Your task to perform on an android device: toggle translation in the chrome app Image 0: 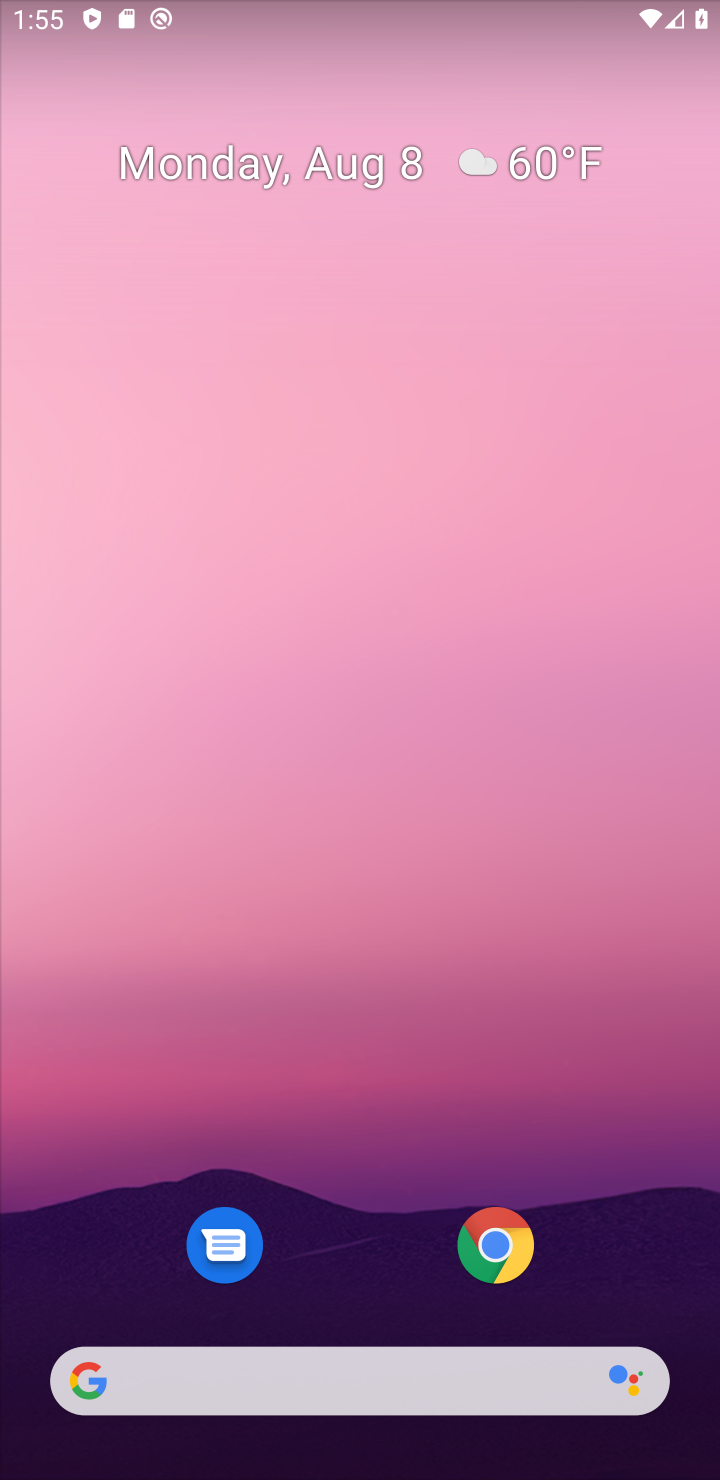
Step 0: press home button
Your task to perform on an android device: toggle translation in the chrome app Image 1: 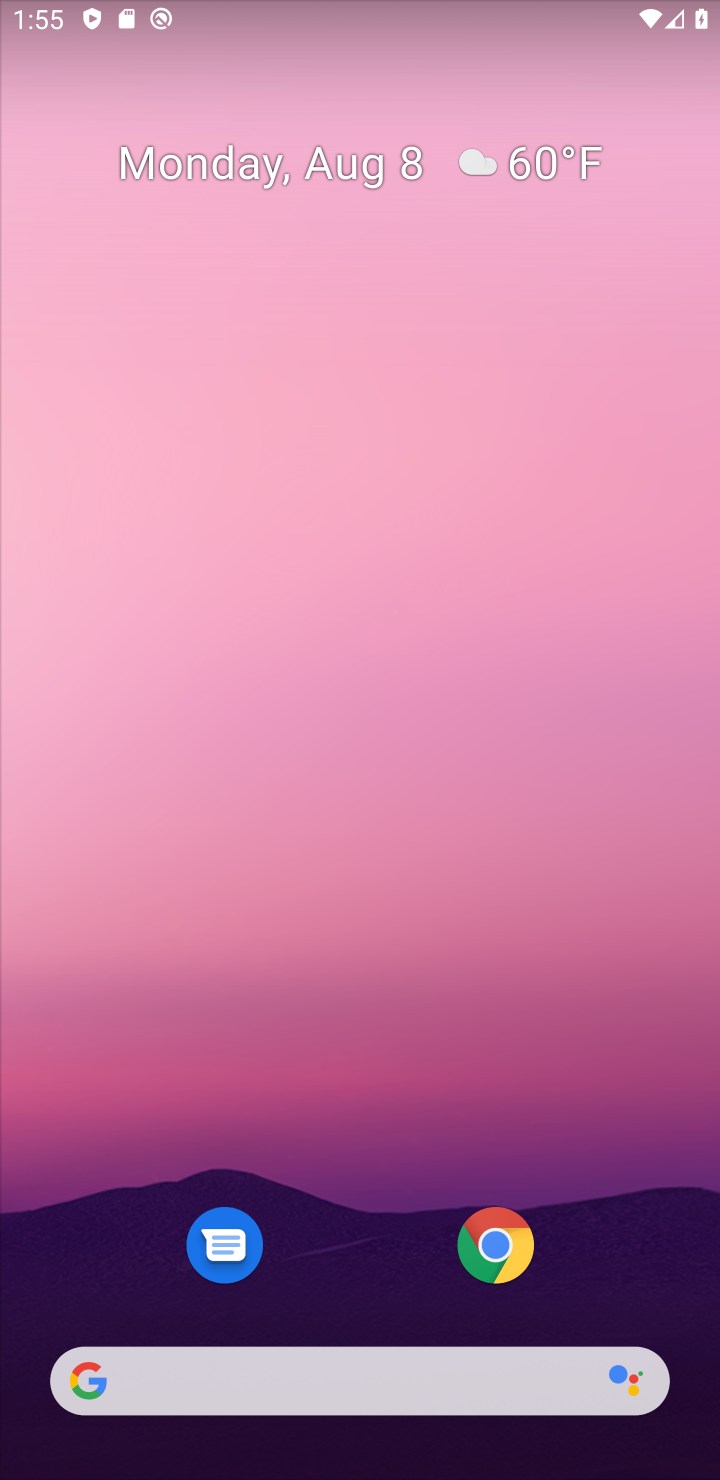
Step 1: click (498, 1249)
Your task to perform on an android device: toggle translation in the chrome app Image 2: 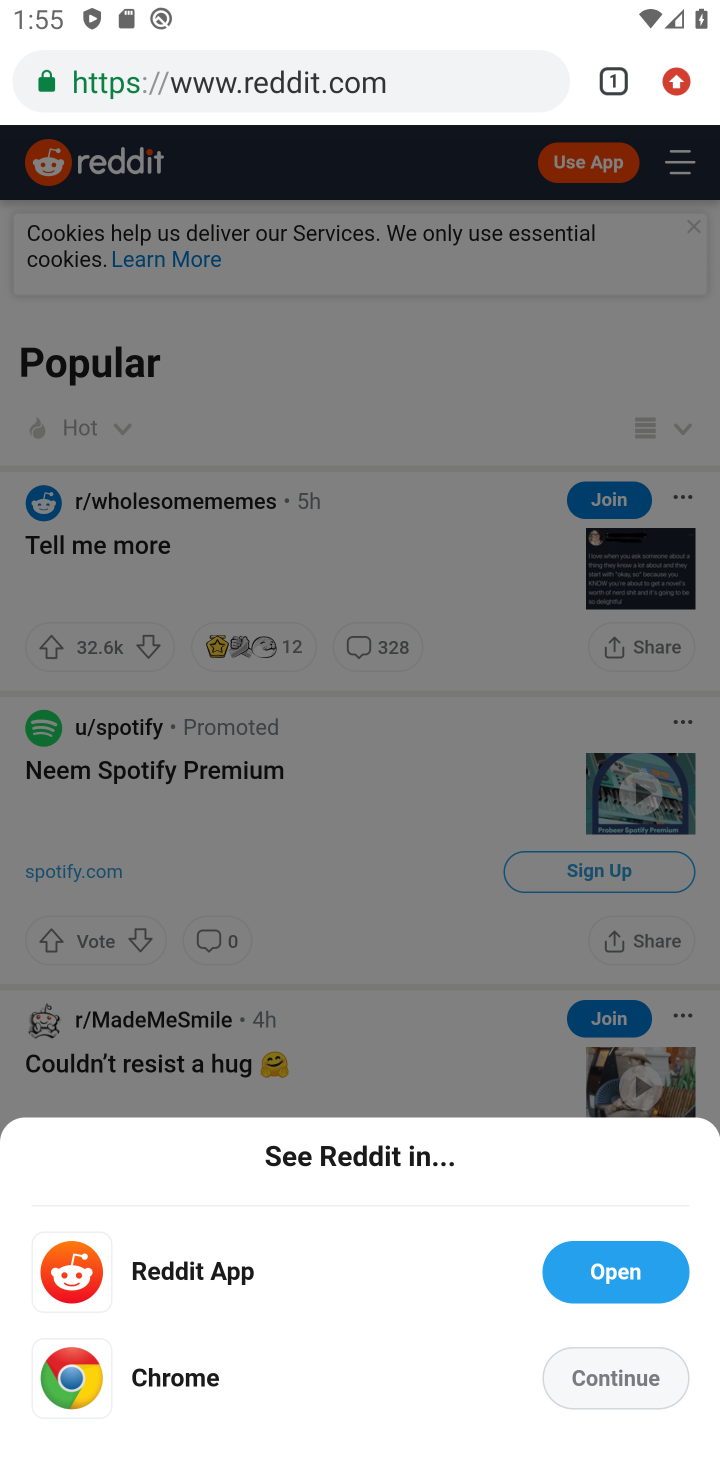
Step 2: click (615, 1368)
Your task to perform on an android device: toggle translation in the chrome app Image 3: 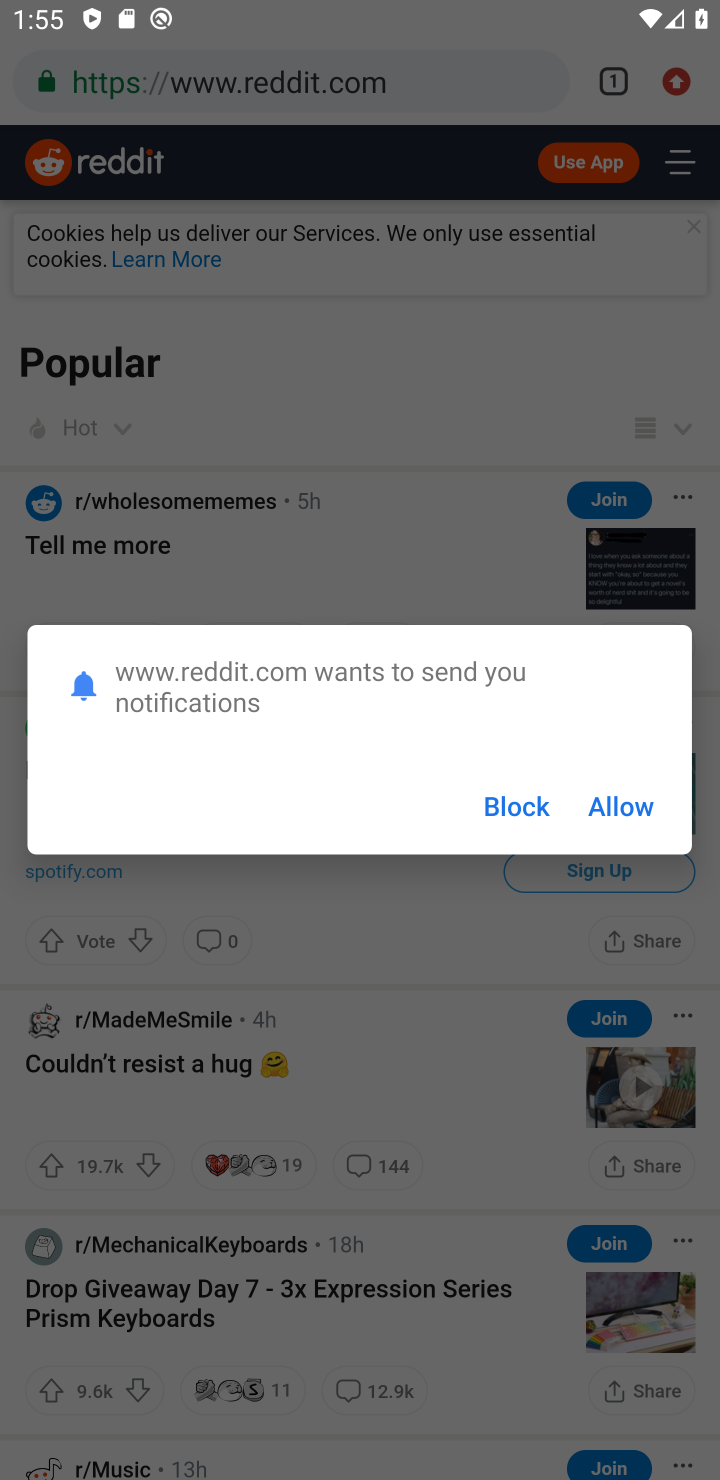
Step 3: click (625, 793)
Your task to perform on an android device: toggle translation in the chrome app Image 4: 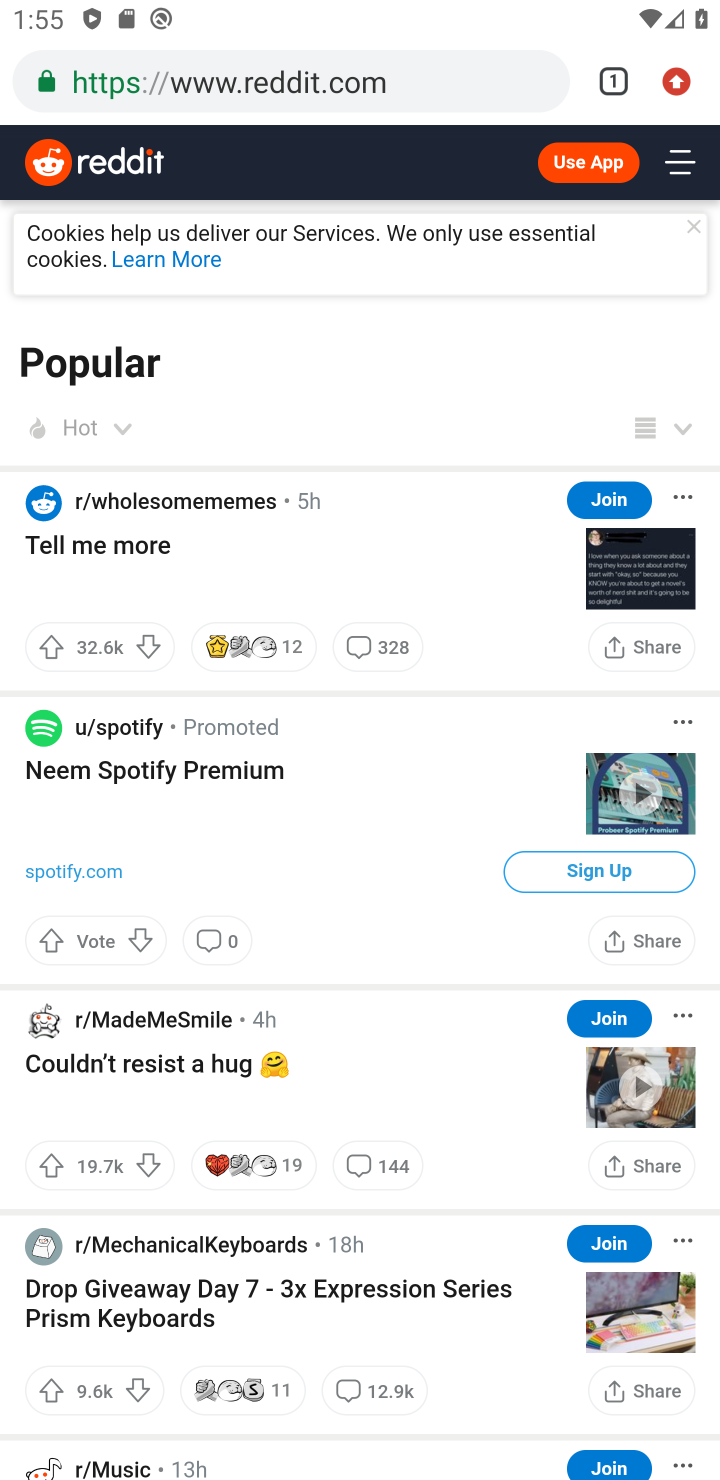
Step 4: click (692, 75)
Your task to perform on an android device: toggle translation in the chrome app Image 5: 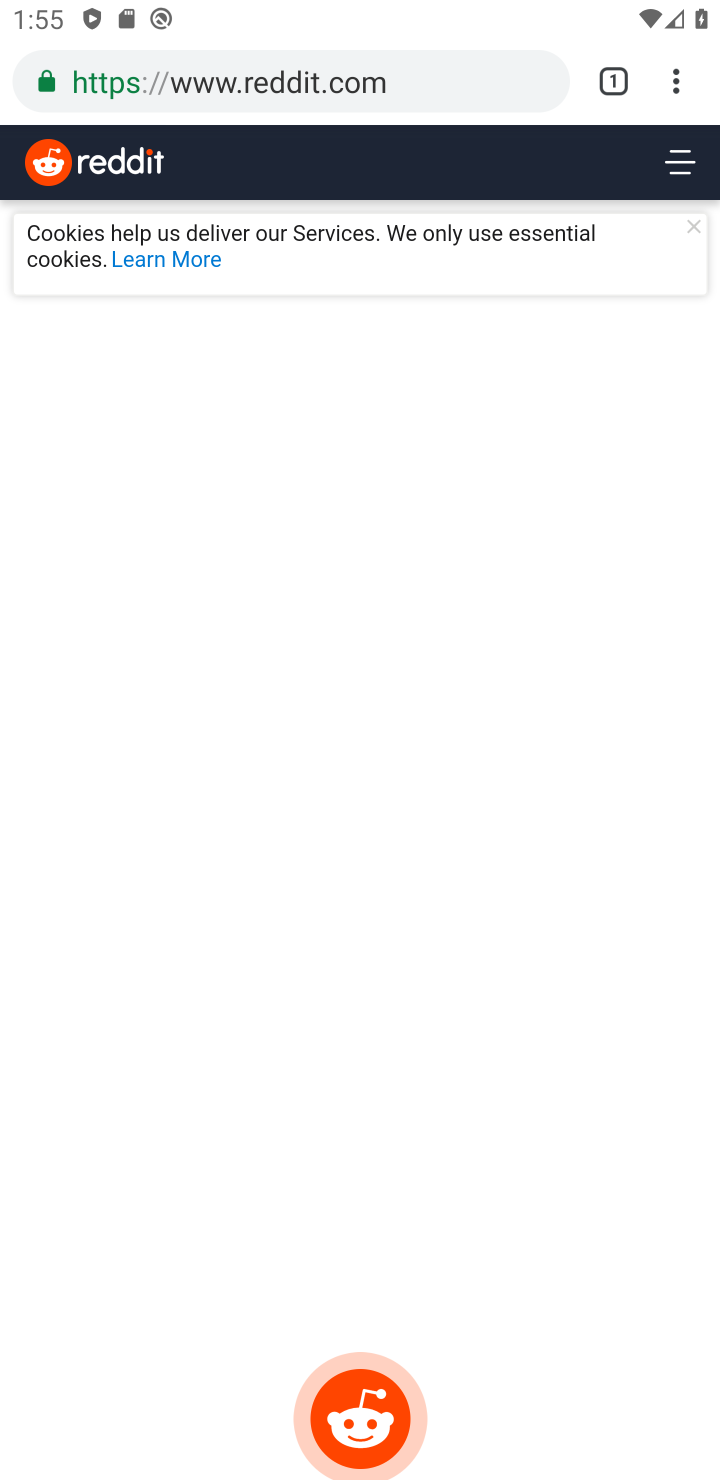
Step 5: click (676, 79)
Your task to perform on an android device: toggle translation in the chrome app Image 6: 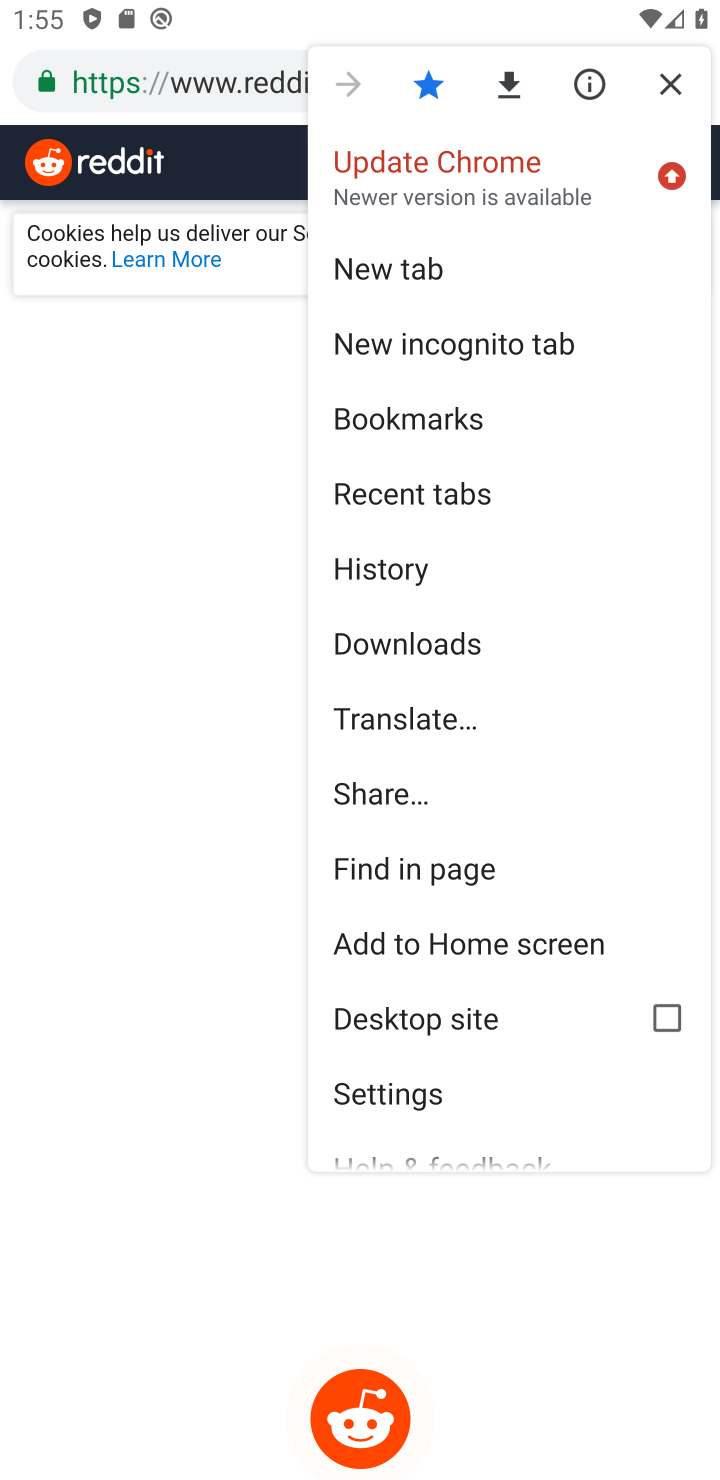
Step 6: click (383, 1091)
Your task to perform on an android device: toggle translation in the chrome app Image 7: 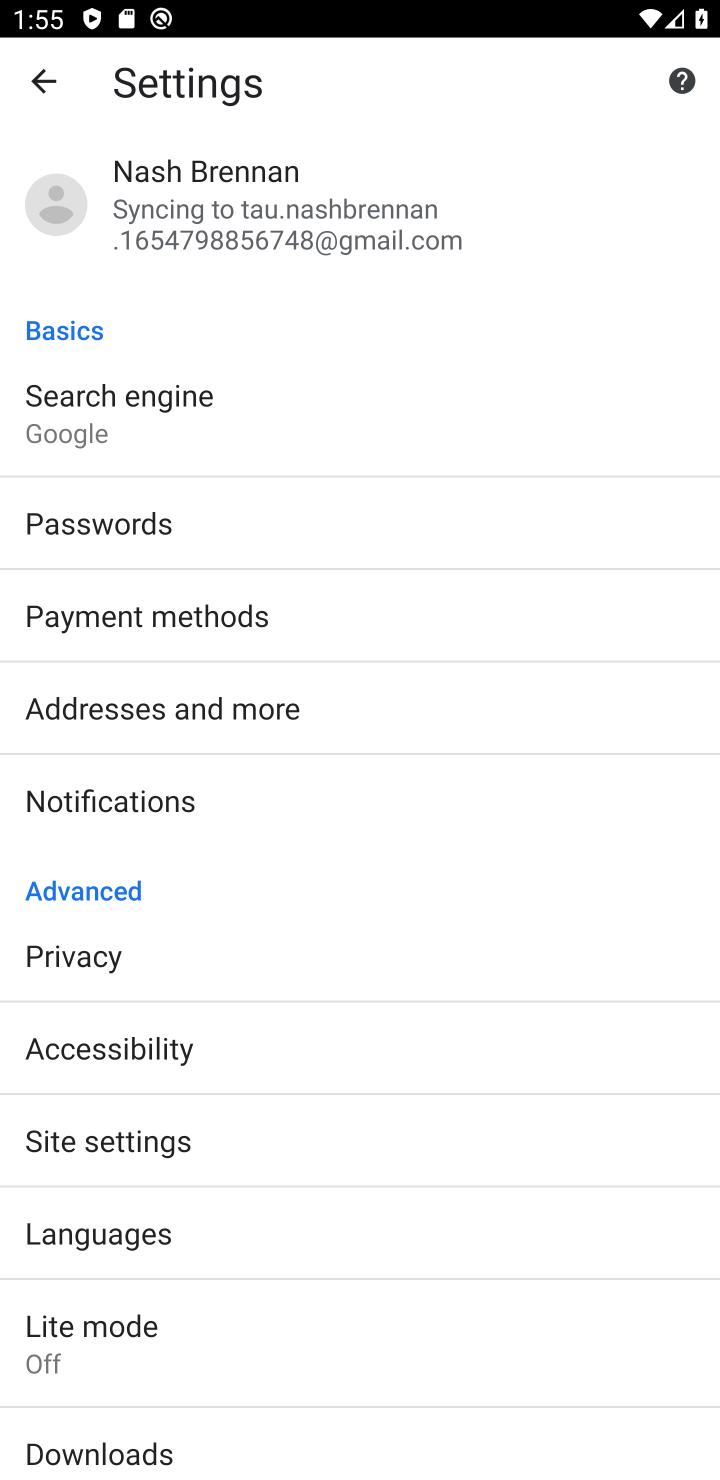
Step 7: click (106, 1235)
Your task to perform on an android device: toggle translation in the chrome app Image 8: 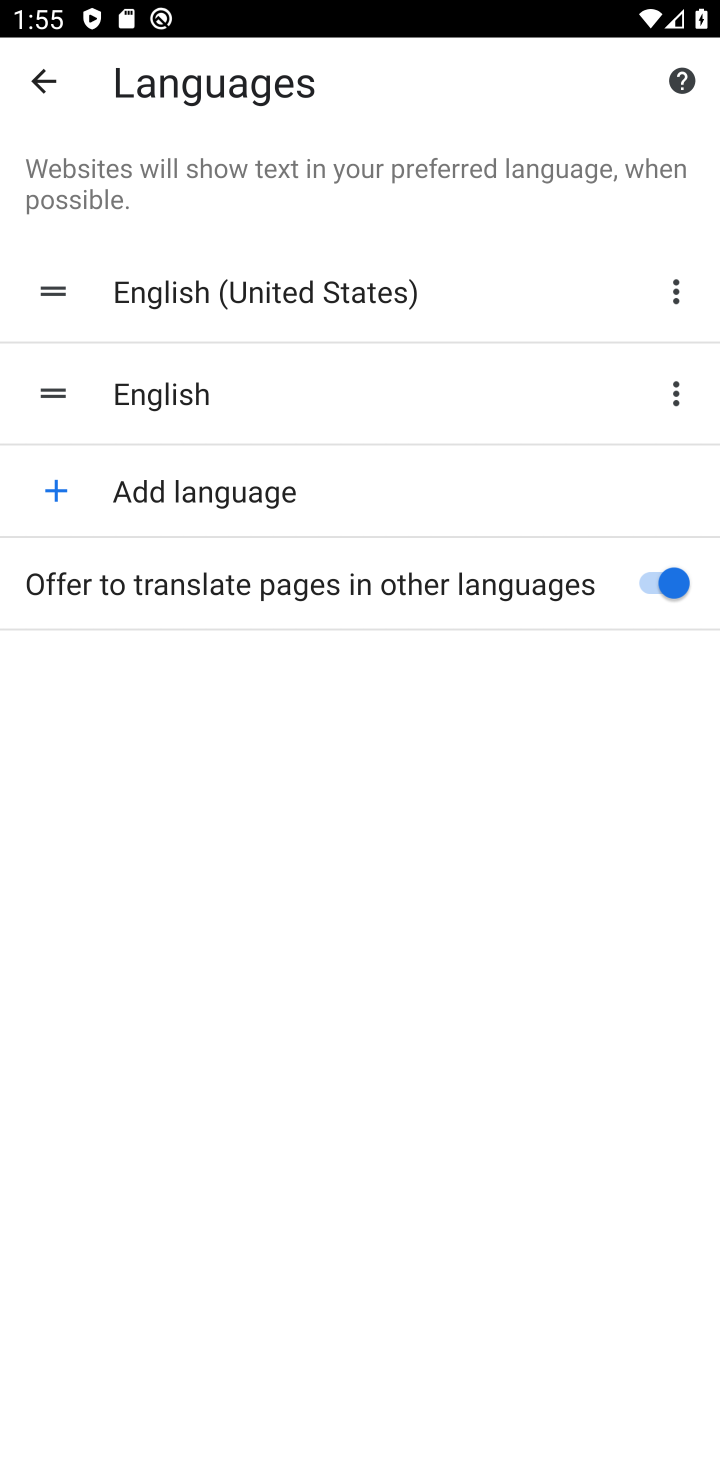
Step 8: click (677, 581)
Your task to perform on an android device: toggle translation in the chrome app Image 9: 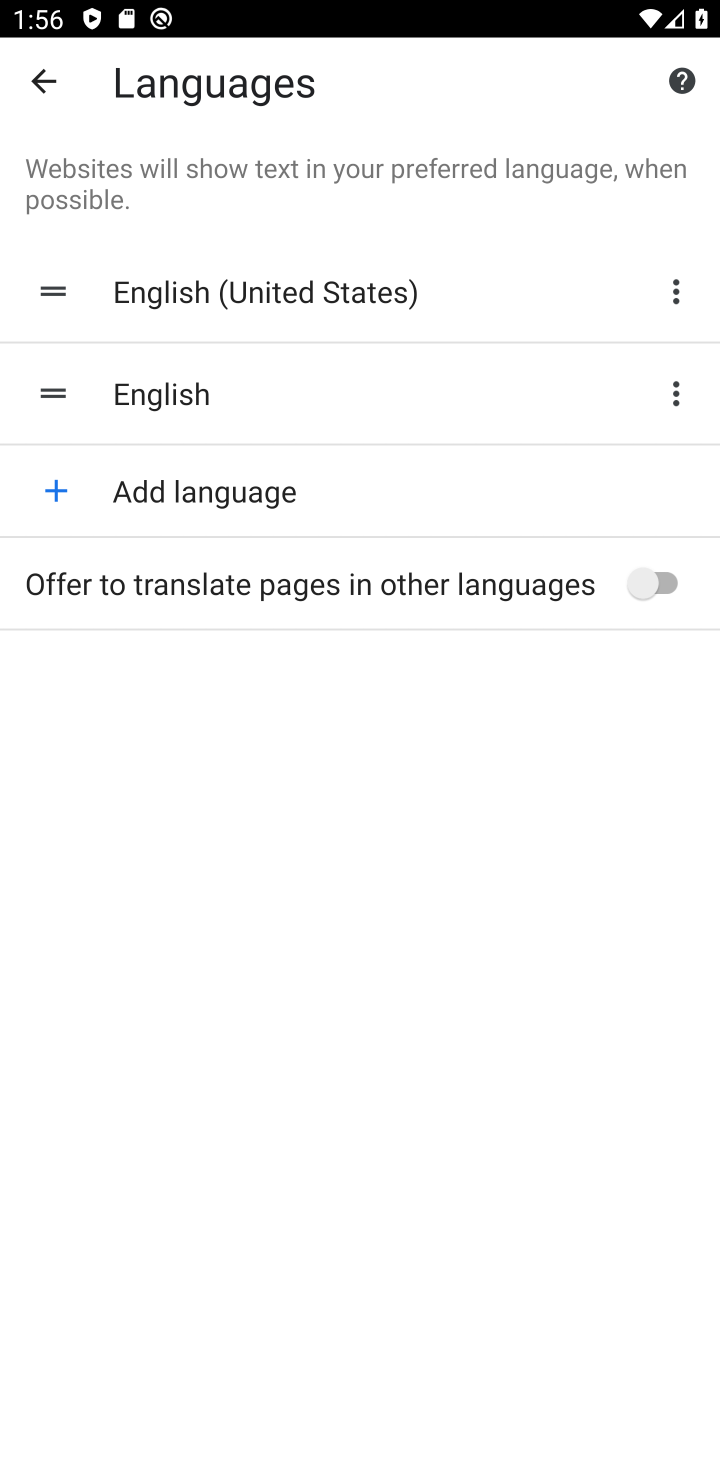
Step 9: task complete